Your task to perform on an android device: Open wifi settings Image 0: 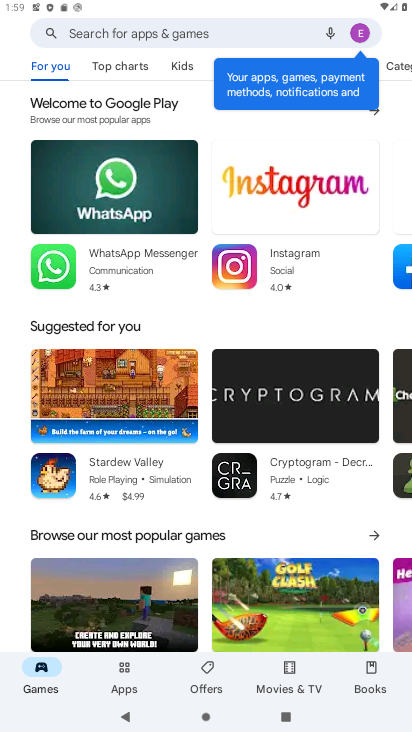
Step 0: press home button
Your task to perform on an android device: Open wifi settings Image 1: 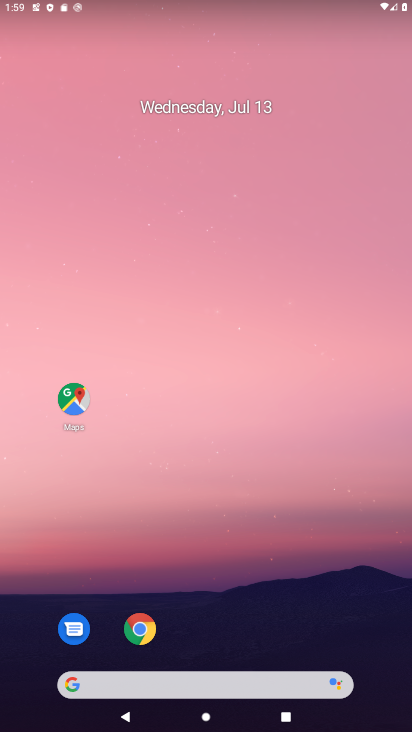
Step 1: drag from (200, 678) to (226, 161)
Your task to perform on an android device: Open wifi settings Image 2: 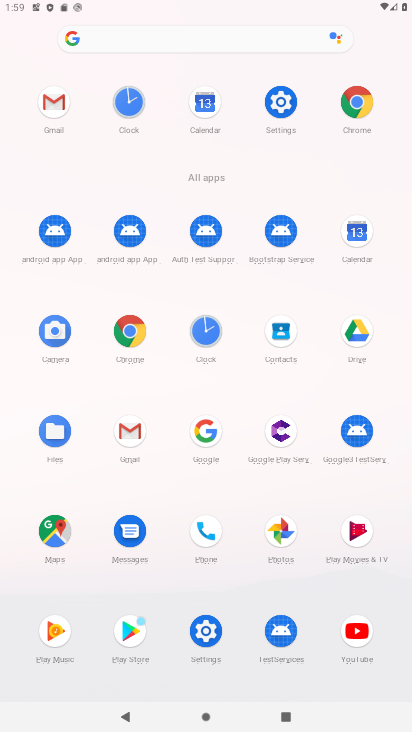
Step 2: click (280, 102)
Your task to perform on an android device: Open wifi settings Image 3: 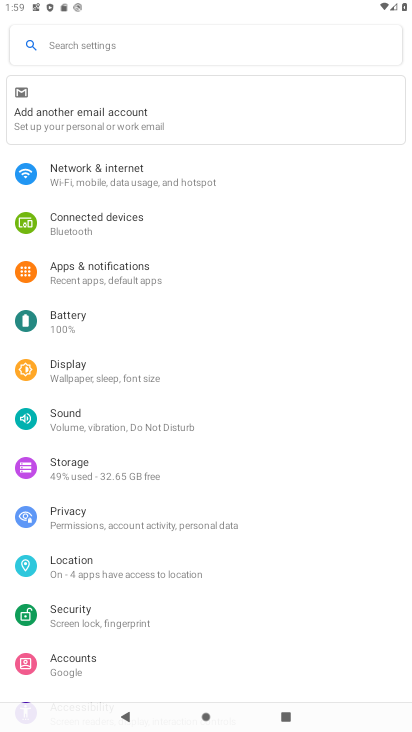
Step 3: click (141, 178)
Your task to perform on an android device: Open wifi settings Image 4: 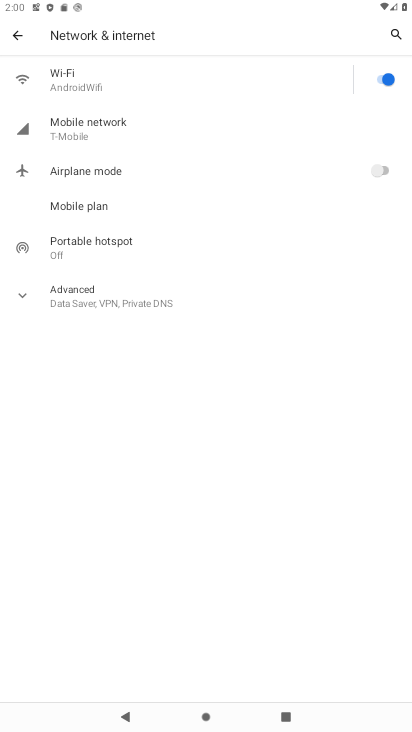
Step 4: click (95, 83)
Your task to perform on an android device: Open wifi settings Image 5: 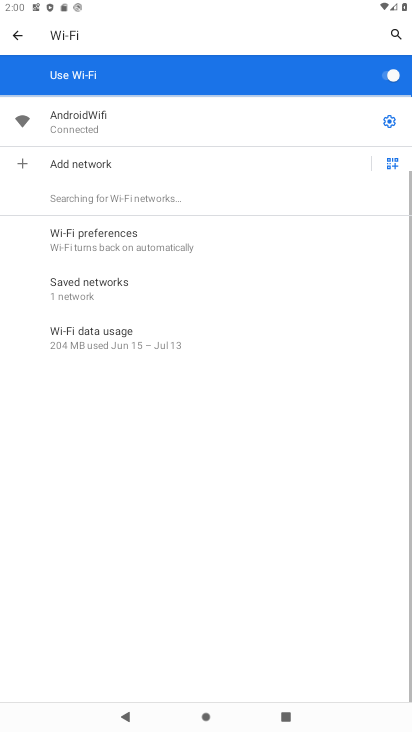
Step 5: click (392, 121)
Your task to perform on an android device: Open wifi settings Image 6: 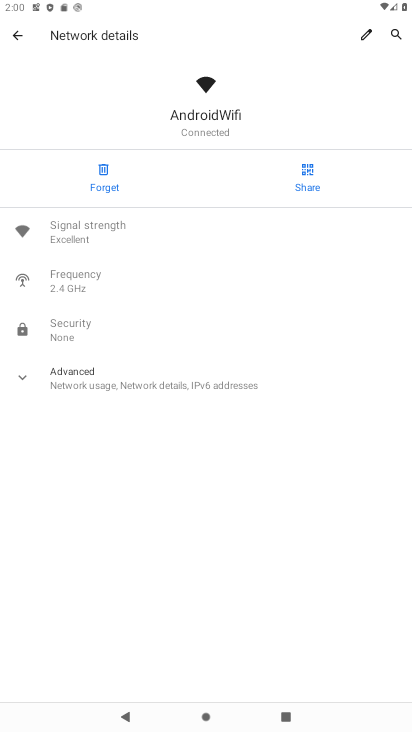
Step 6: task complete